Your task to perform on an android device: turn on improve location accuracy Image 0: 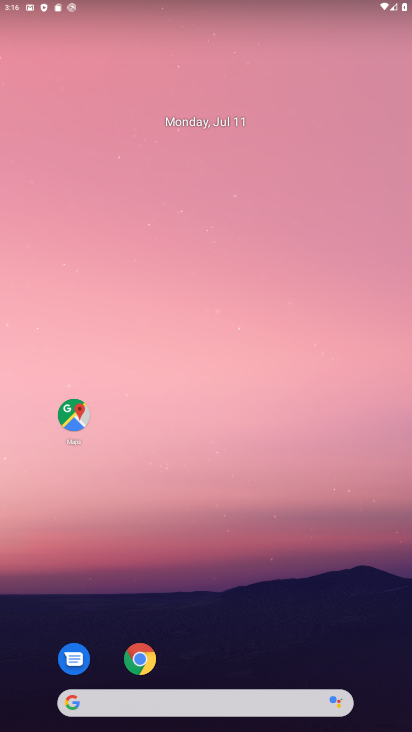
Step 0: drag from (230, 489) to (204, 37)
Your task to perform on an android device: turn on improve location accuracy Image 1: 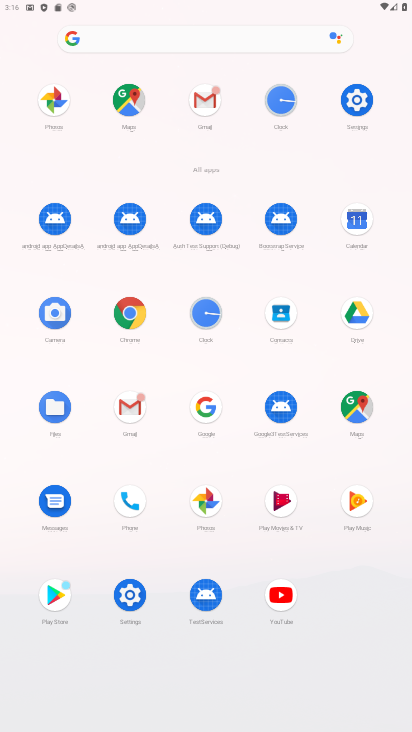
Step 1: click (359, 111)
Your task to perform on an android device: turn on improve location accuracy Image 2: 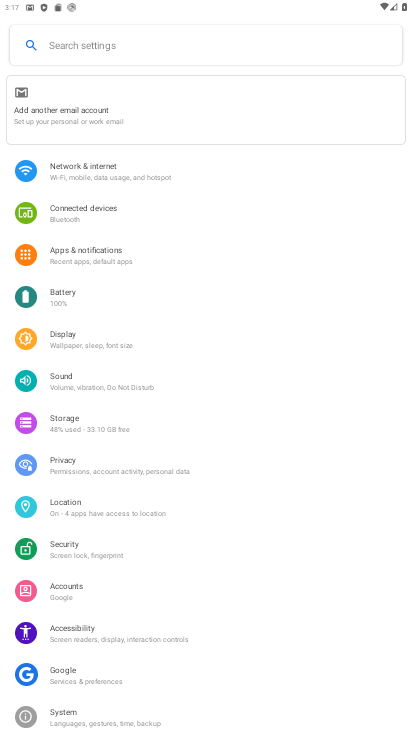
Step 2: click (83, 507)
Your task to perform on an android device: turn on improve location accuracy Image 3: 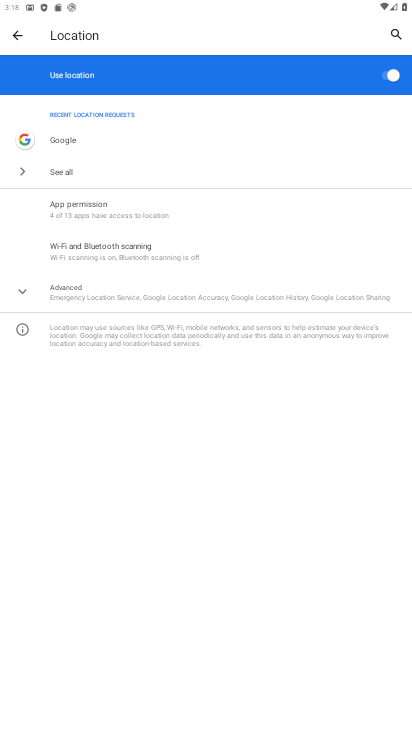
Step 3: click (129, 299)
Your task to perform on an android device: turn on improve location accuracy Image 4: 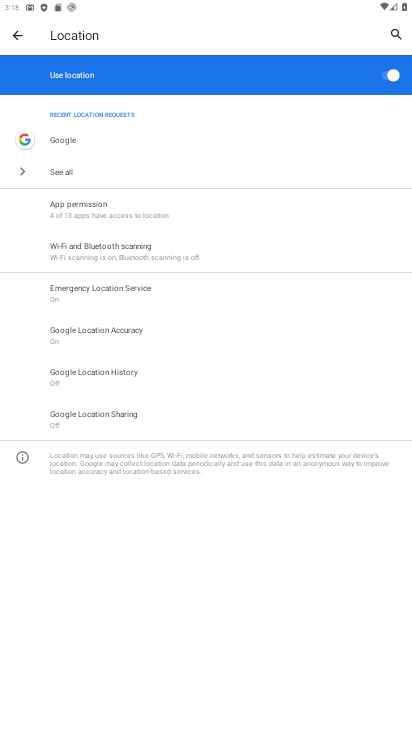
Step 4: click (104, 333)
Your task to perform on an android device: turn on improve location accuracy Image 5: 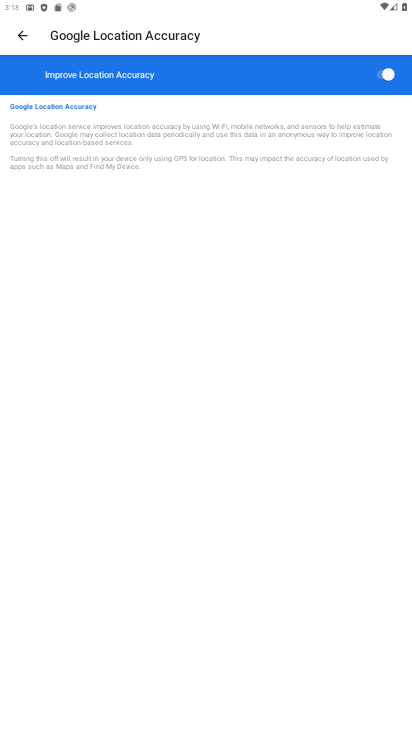
Step 5: task complete